Your task to perform on an android device: Go to Yahoo.com Image 0: 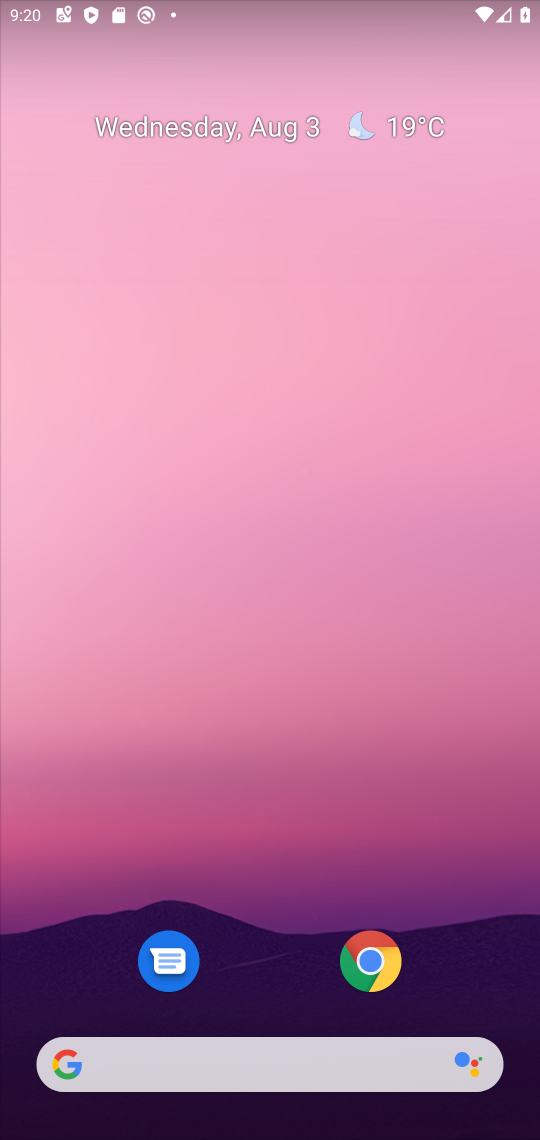
Step 0: drag from (277, 997) to (297, 33)
Your task to perform on an android device: Go to Yahoo.com Image 1: 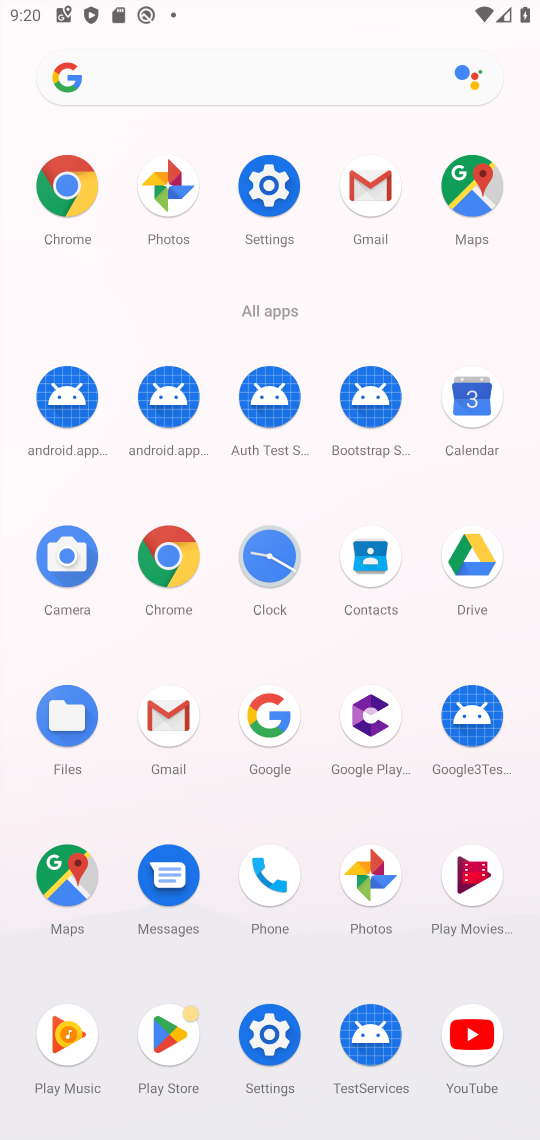
Step 1: click (86, 184)
Your task to perform on an android device: Go to Yahoo.com Image 2: 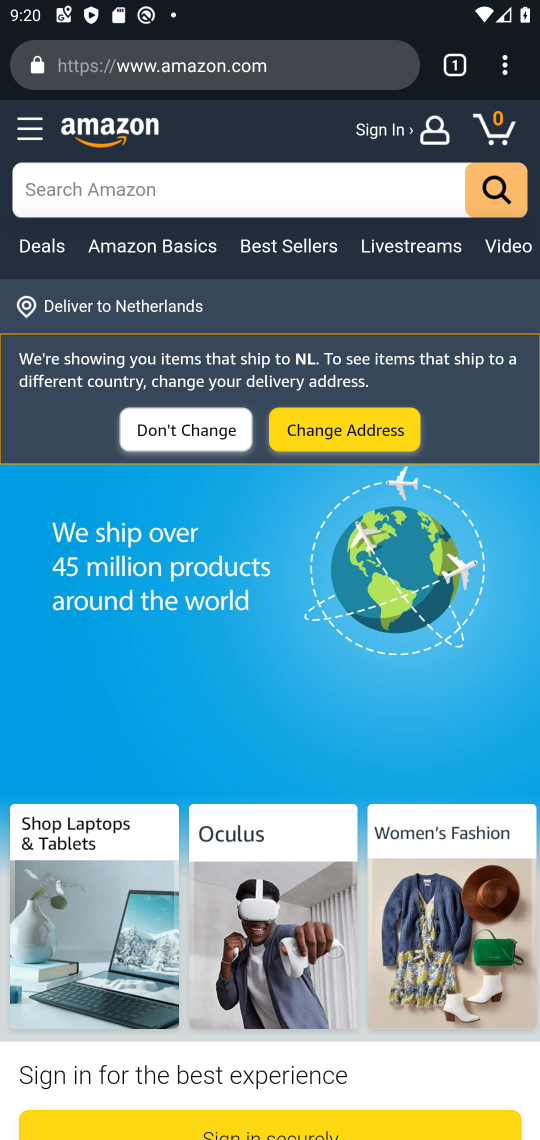
Step 2: click (448, 80)
Your task to perform on an android device: Go to Yahoo.com Image 3: 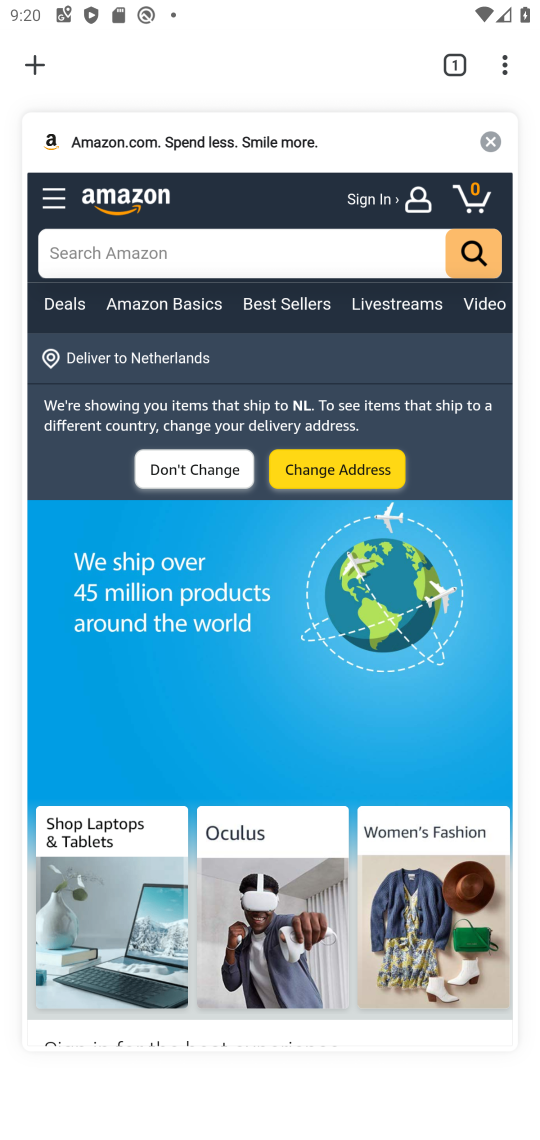
Step 3: click (33, 76)
Your task to perform on an android device: Go to Yahoo.com Image 4: 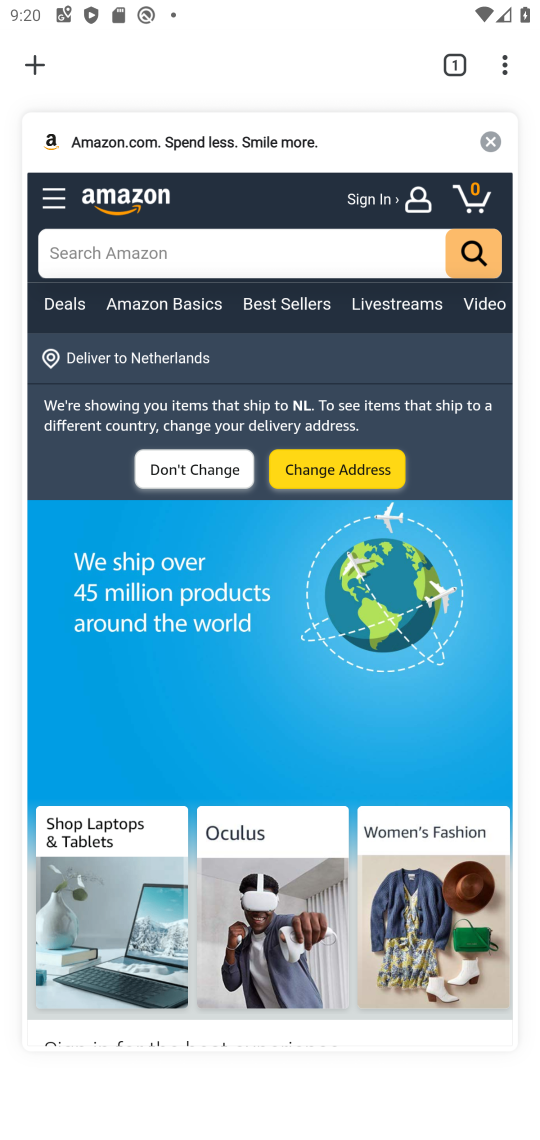
Step 4: click (16, 65)
Your task to perform on an android device: Go to Yahoo.com Image 5: 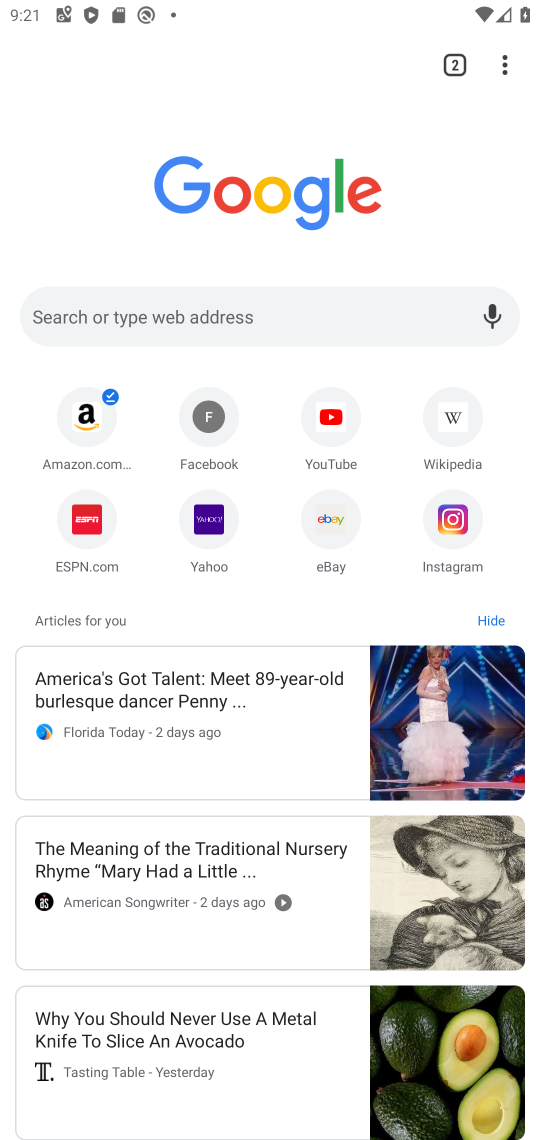
Step 5: click (214, 531)
Your task to perform on an android device: Go to Yahoo.com Image 6: 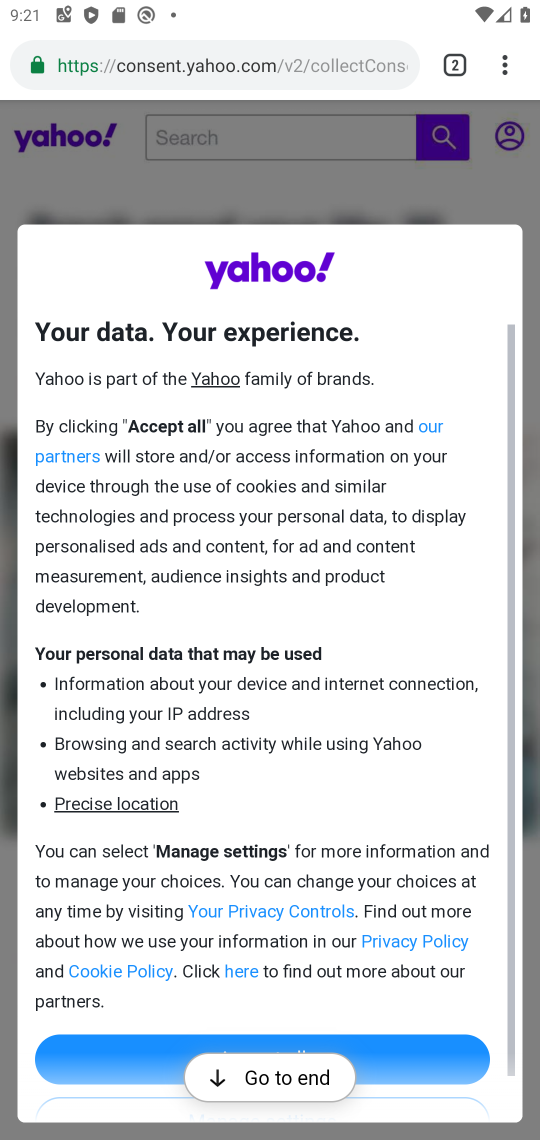
Step 6: task complete